Your task to perform on an android device: Open Google Maps Image 0: 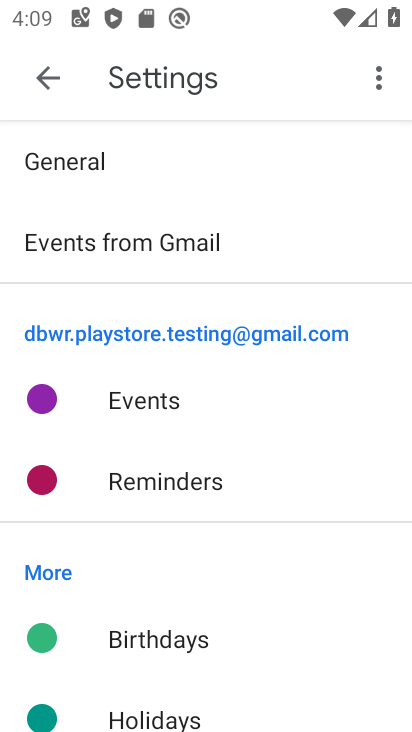
Step 0: press home button
Your task to perform on an android device: Open Google Maps Image 1: 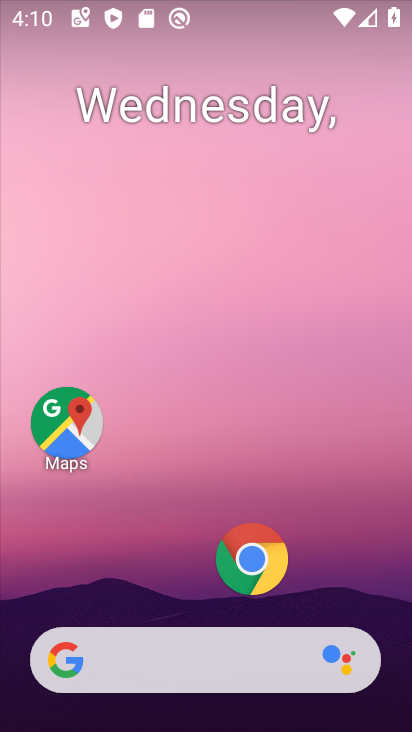
Step 1: click (69, 412)
Your task to perform on an android device: Open Google Maps Image 2: 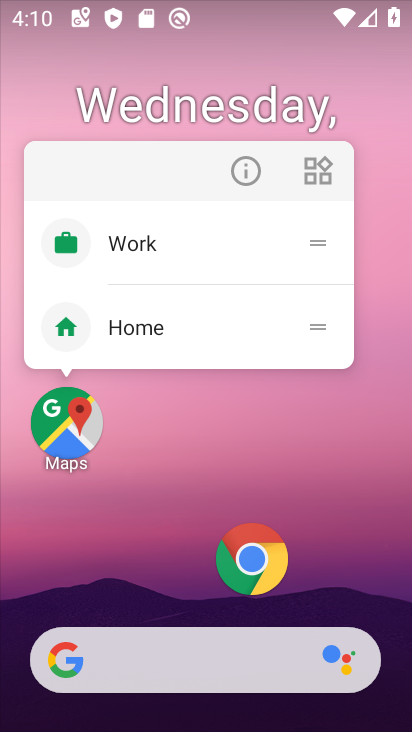
Step 2: click (71, 426)
Your task to perform on an android device: Open Google Maps Image 3: 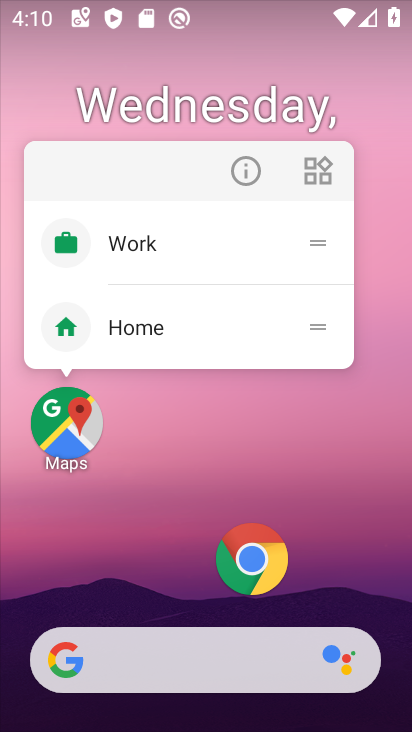
Step 3: click (232, 174)
Your task to perform on an android device: Open Google Maps Image 4: 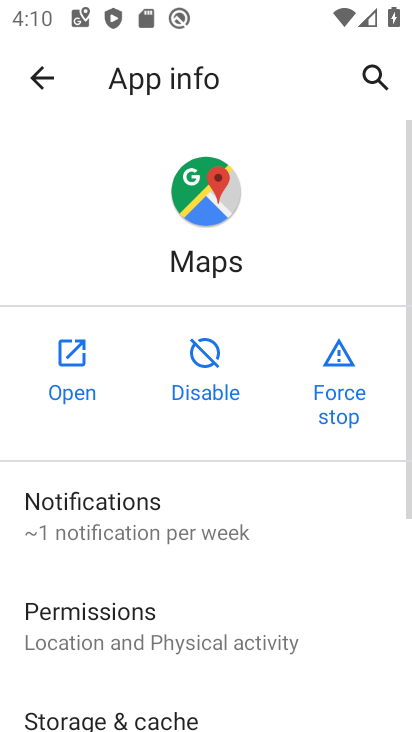
Step 4: click (63, 373)
Your task to perform on an android device: Open Google Maps Image 5: 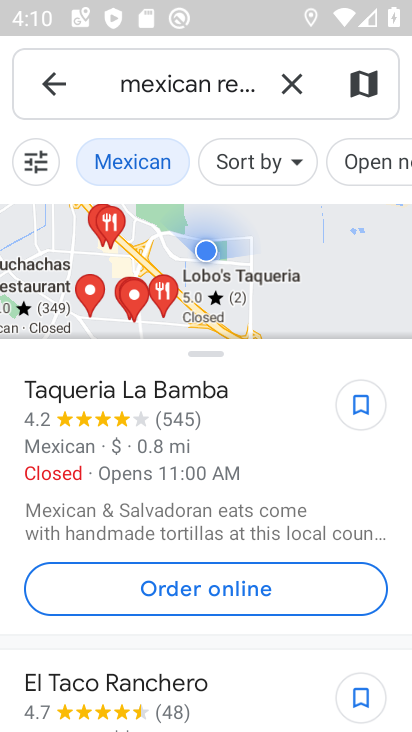
Step 5: task complete